Your task to perform on an android device: uninstall "DuckDuckGo Privacy Browser" Image 0: 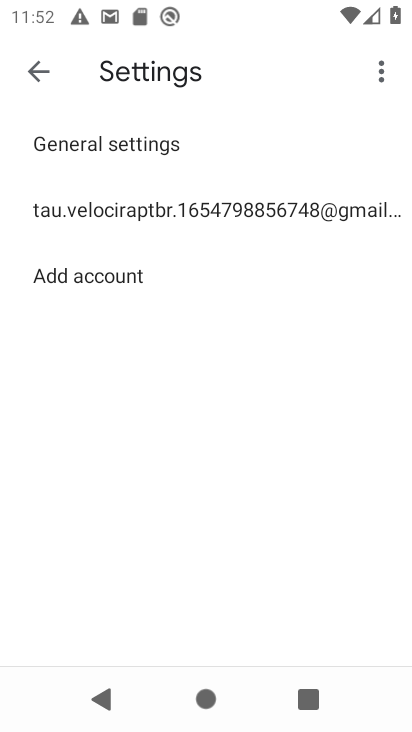
Step 0: press home button
Your task to perform on an android device: uninstall "DuckDuckGo Privacy Browser" Image 1: 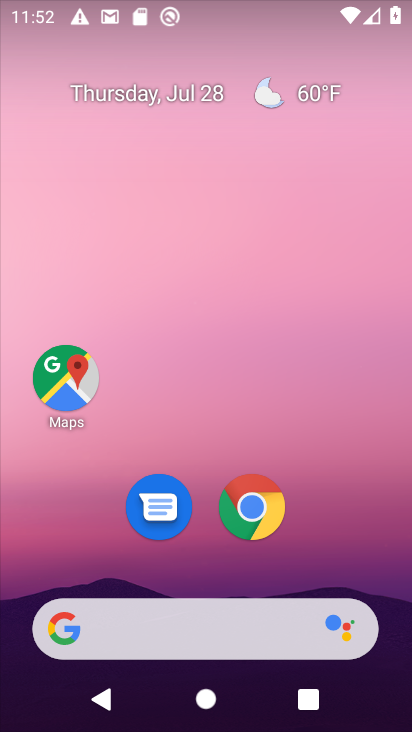
Step 1: drag from (201, 572) to (111, 15)
Your task to perform on an android device: uninstall "DuckDuckGo Privacy Browser" Image 2: 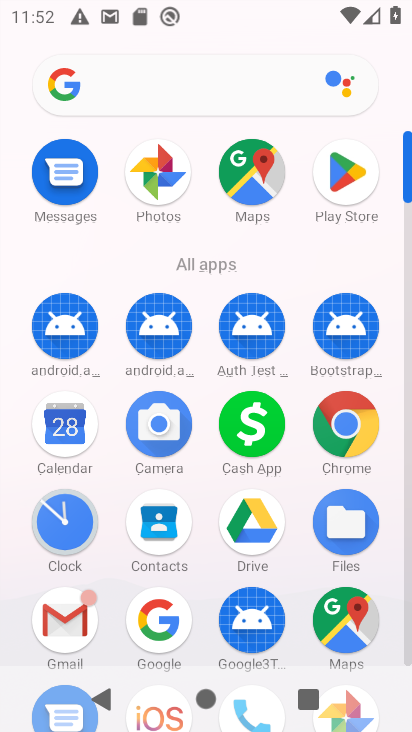
Step 2: click (348, 186)
Your task to perform on an android device: uninstall "DuckDuckGo Privacy Browser" Image 3: 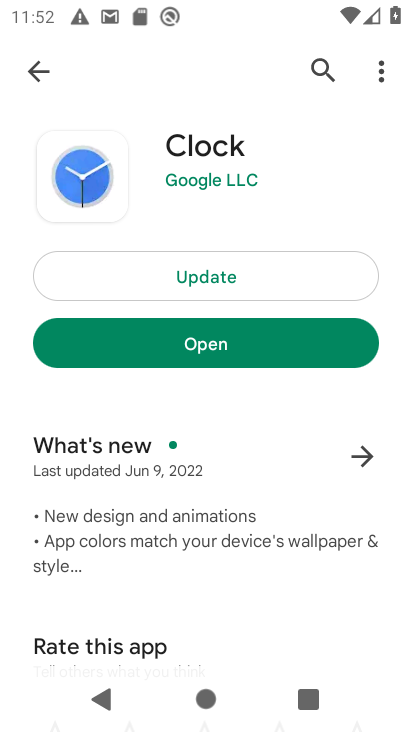
Step 3: click (37, 70)
Your task to perform on an android device: uninstall "DuckDuckGo Privacy Browser" Image 4: 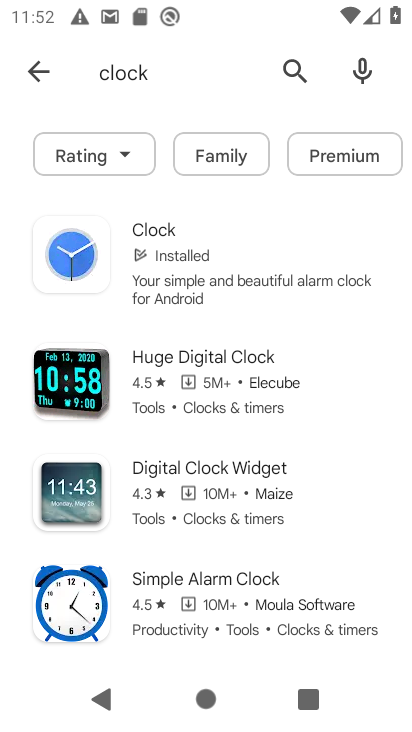
Step 4: click (135, 75)
Your task to perform on an android device: uninstall "DuckDuckGo Privacy Browser" Image 5: 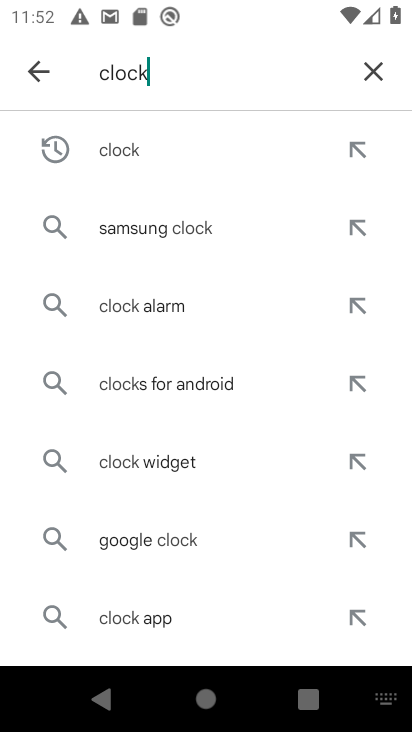
Step 5: click (378, 76)
Your task to perform on an android device: uninstall "DuckDuckGo Privacy Browser" Image 6: 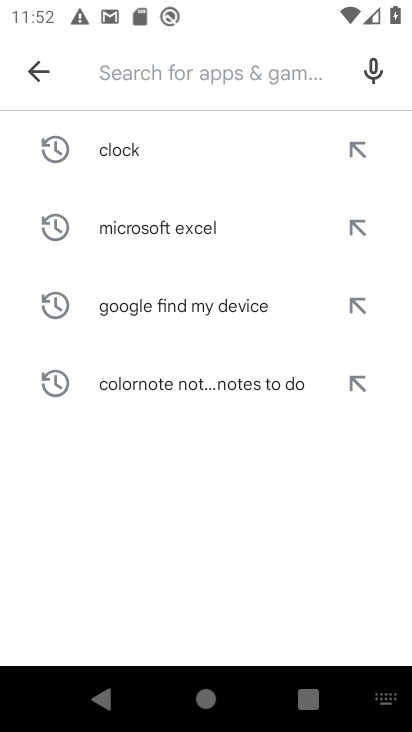
Step 6: type "Di"
Your task to perform on an android device: uninstall "DuckDuckGo Privacy Browser" Image 7: 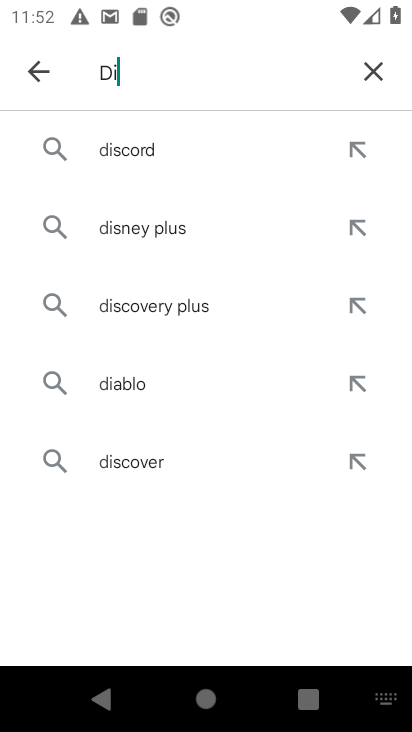
Step 7: type "duckduckgo"
Your task to perform on an android device: uninstall "DuckDuckGo Privacy Browser" Image 8: 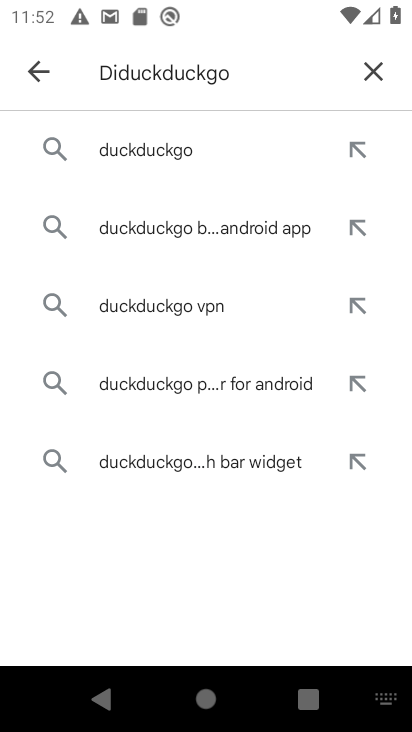
Step 8: click (138, 168)
Your task to perform on an android device: uninstall "DuckDuckGo Privacy Browser" Image 9: 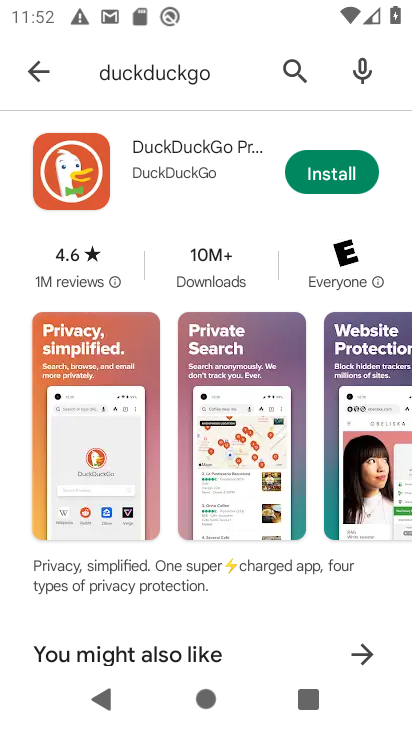
Step 9: task complete